Your task to perform on an android device: Search for seafood restaurants on Google Maps Image 0: 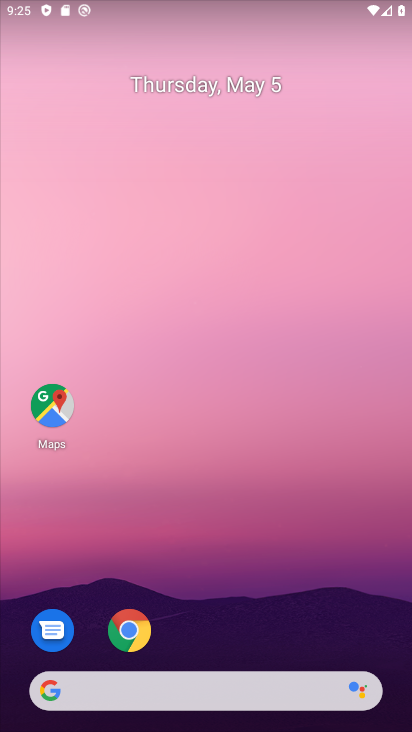
Step 0: click (50, 403)
Your task to perform on an android device: Search for seafood restaurants on Google Maps Image 1: 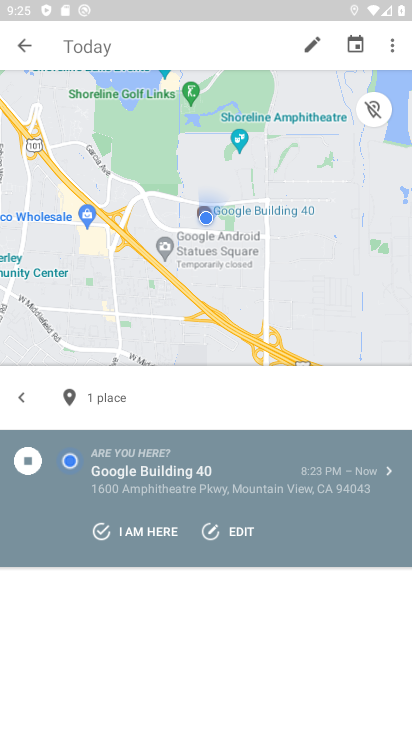
Step 1: click (29, 43)
Your task to perform on an android device: Search for seafood restaurants on Google Maps Image 2: 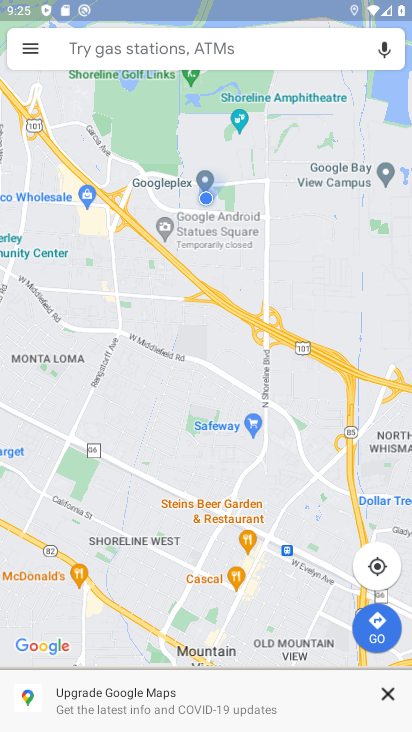
Step 2: click (96, 45)
Your task to perform on an android device: Search for seafood restaurants on Google Maps Image 3: 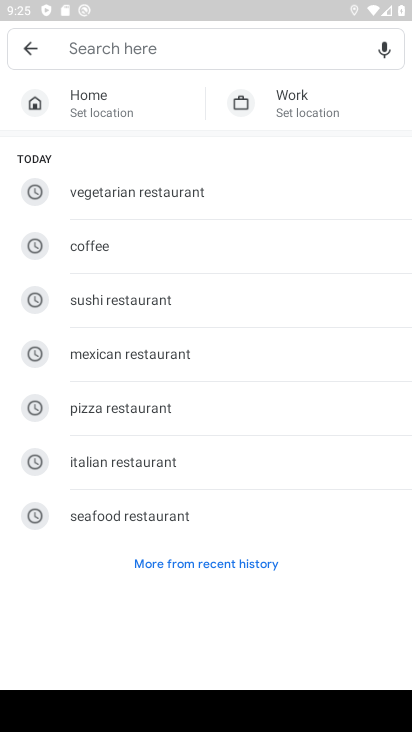
Step 3: click (116, 510)
Your task to perform on an android device: Search for seafood restaurants on Google Maps Image 4: 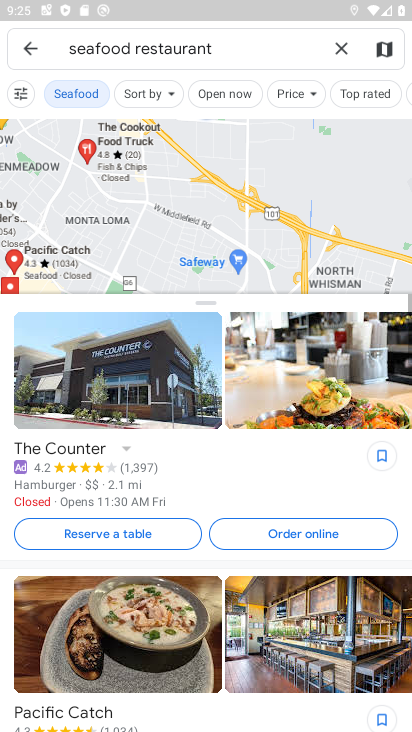
Step 4: task complete